Your task to perform on an android device: Open Chrome and go to the settings page Image 0: 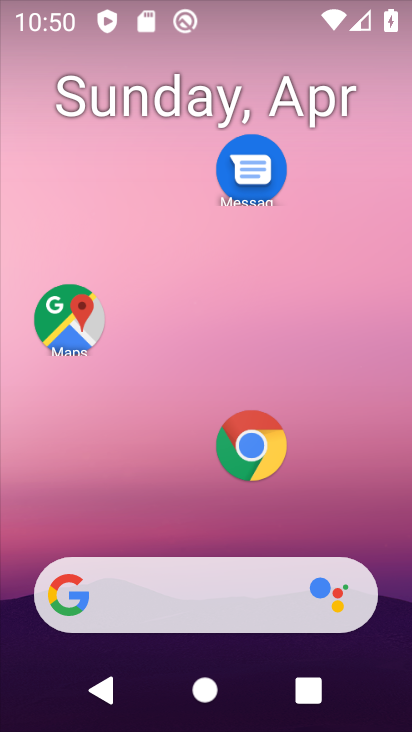
Step 0: drag from (146, 579) to (278, 161)
Your task to perform on an android device: Open Chrome and go to the settings page Image 1: 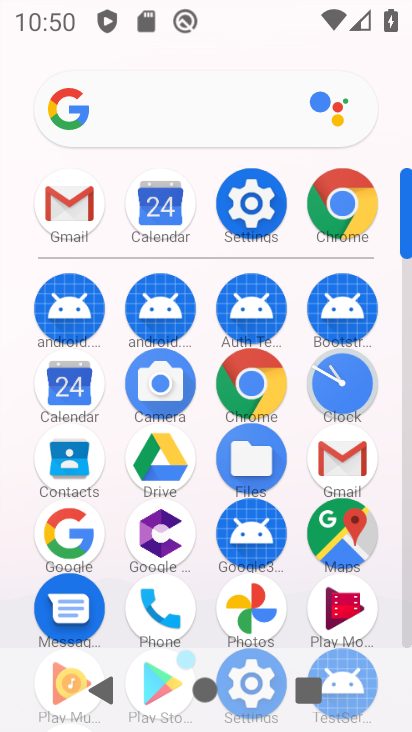
Step 1: click (349, 214)
Your task to perform on an android device: Open Chrome and go to the settings page Image 2: 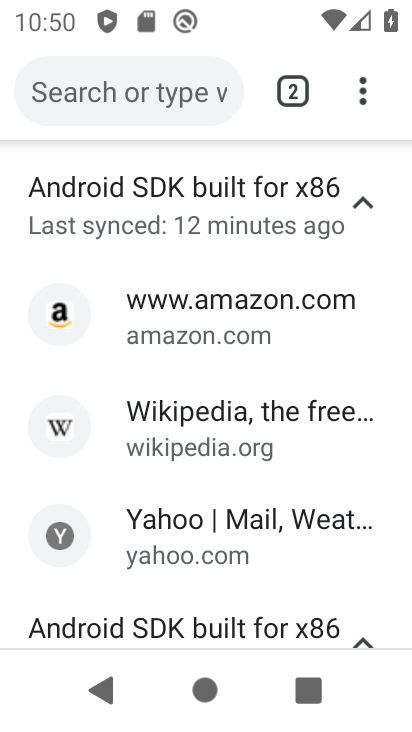
Step 2: task complete